Your task to perform on an android device: empty trash in the gmail app Image 0: 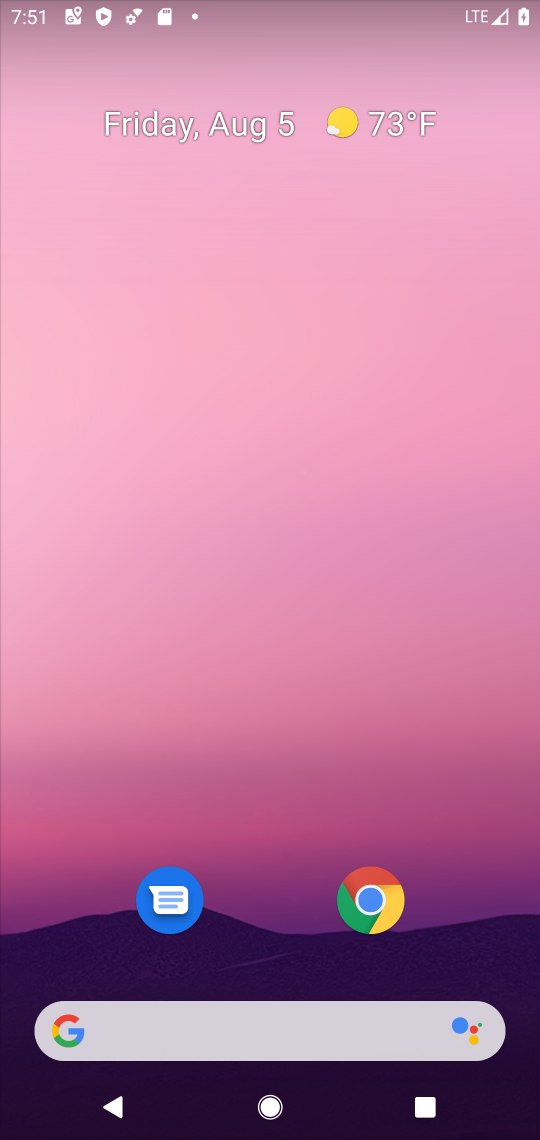
Step 0: drag from (251, 969) to (307, 217)
Your task to perform on an android device: empty trash in the gmail app Image 1: 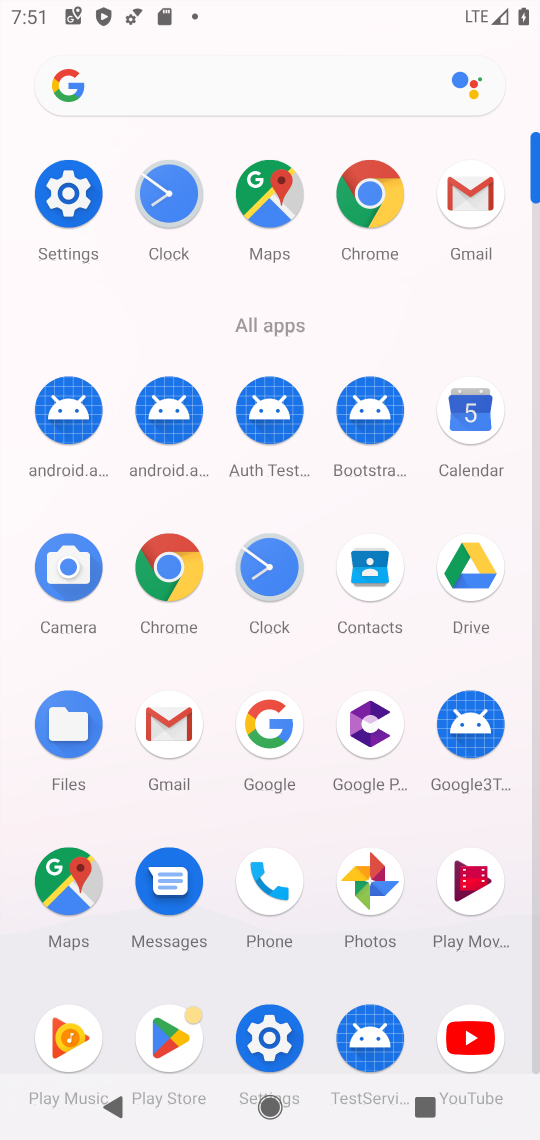
Step 1: click (158, 725)
Your task to perform on an android device: empty trash in the gmail app Image 2: 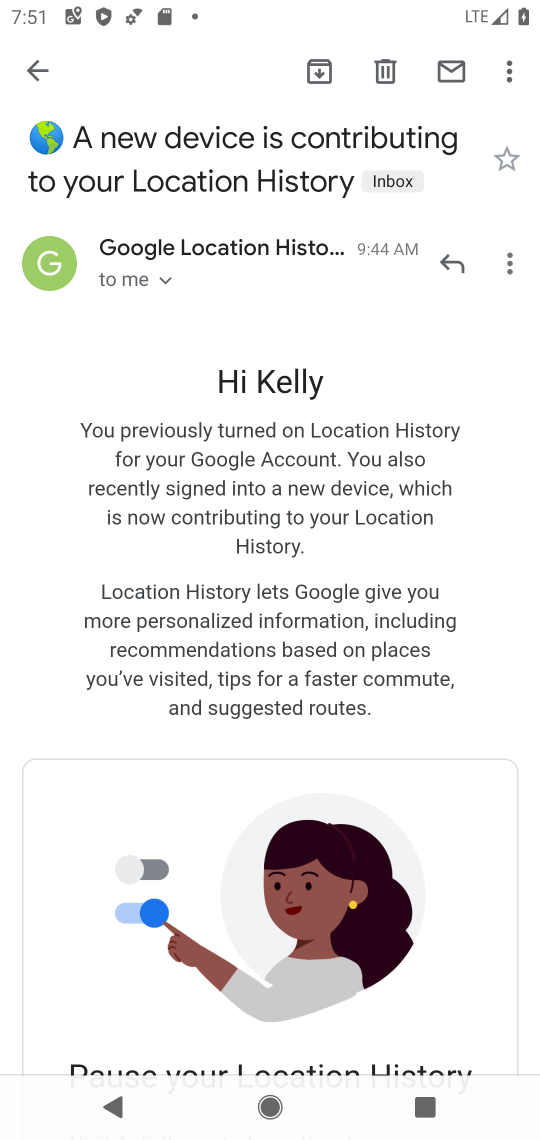
Step 2: click (33, 83)
Your task to perform on an android device: empty trash in the gmail app Image 3: 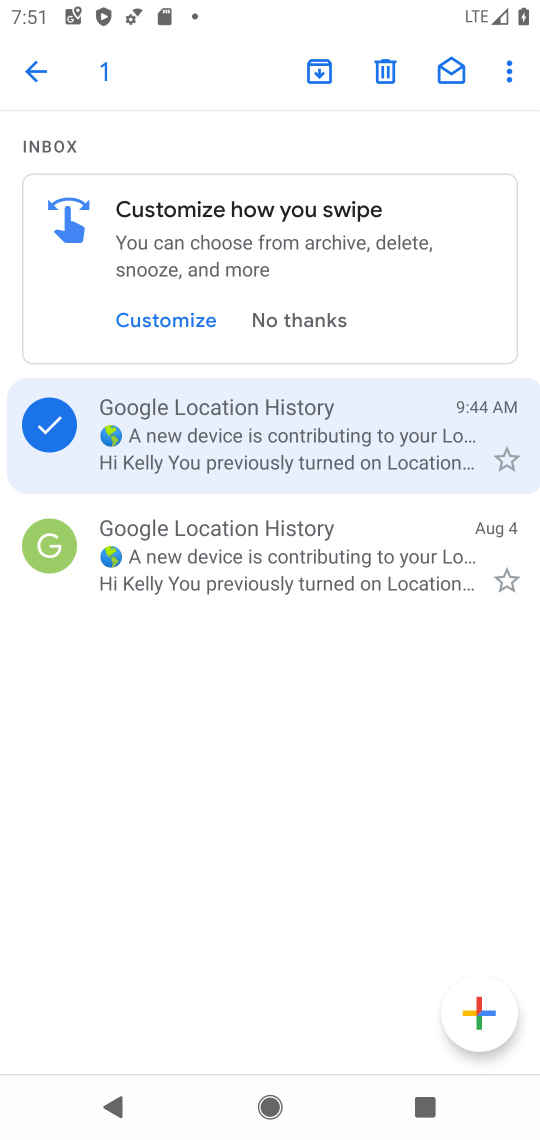
Step 3: click (41, 79)
Your task to perform on an android device: empty trash in the gmail app Image 4: 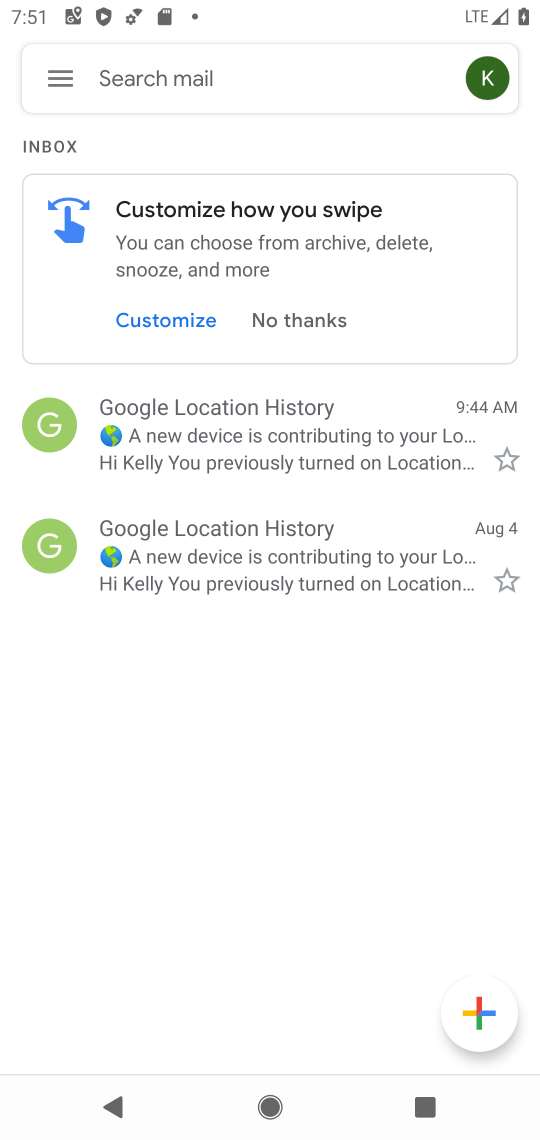
Step 4: click (51, 70)
Your task to perform on an android device: empty trash in the gmail app Image 5: 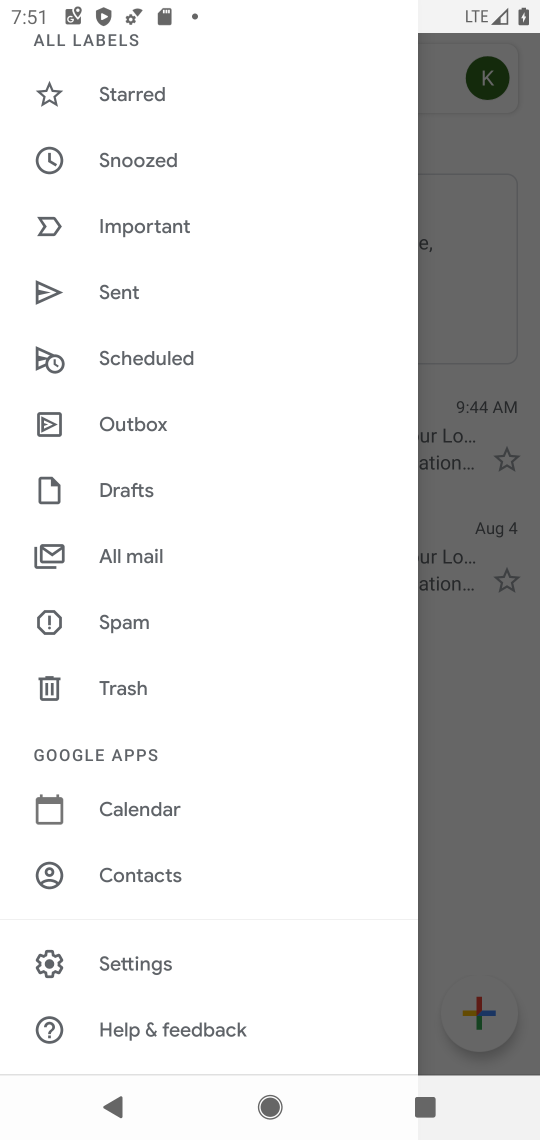
Step 5: click (134, 683)
Your task to perform on an android device: empty trash in the gmail app Image 6: 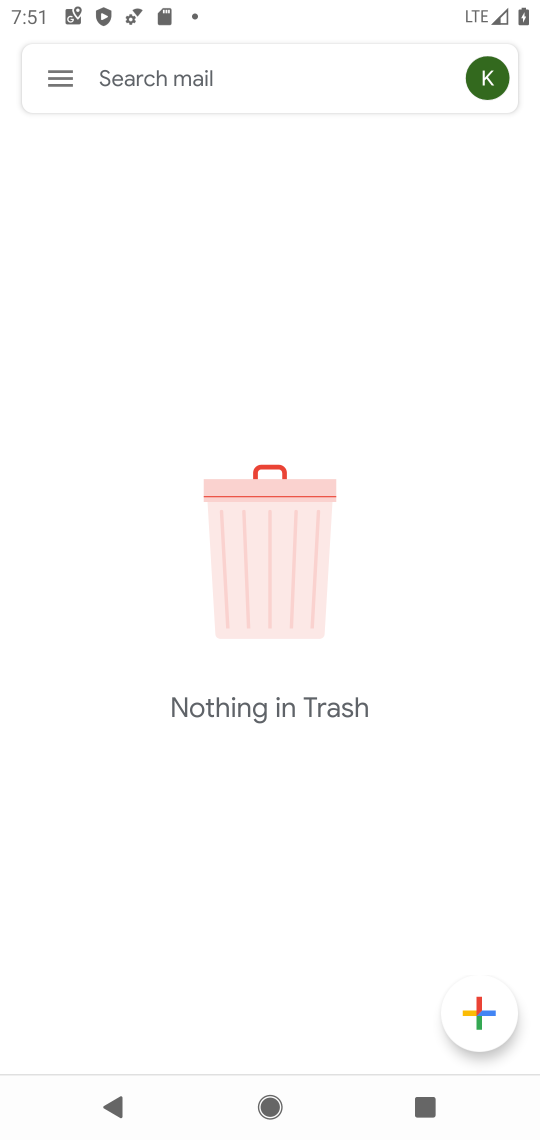
Step 6: task complete